Your task to perform on an android device: show emergency info Image 0: 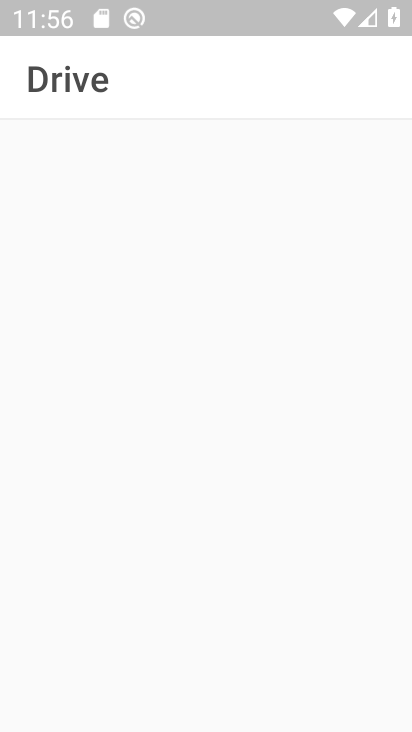
Step 0: press home button
Your task to perform on an android device: show emergency info Image 1: 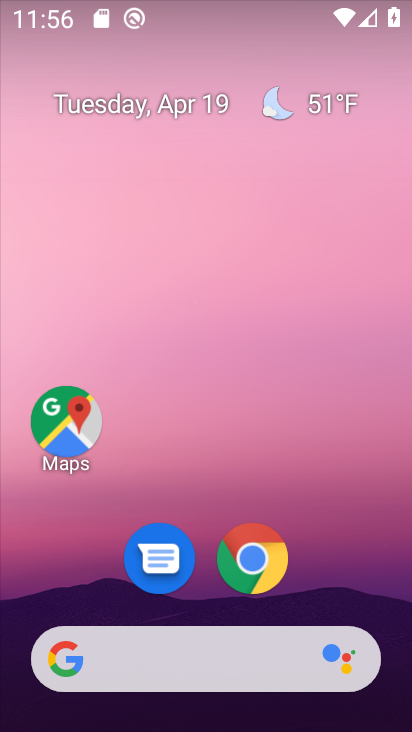
Step 1: drag from (365, 601) to (312, 137)
Your task to perform on an android device: show emergency info Image 2: 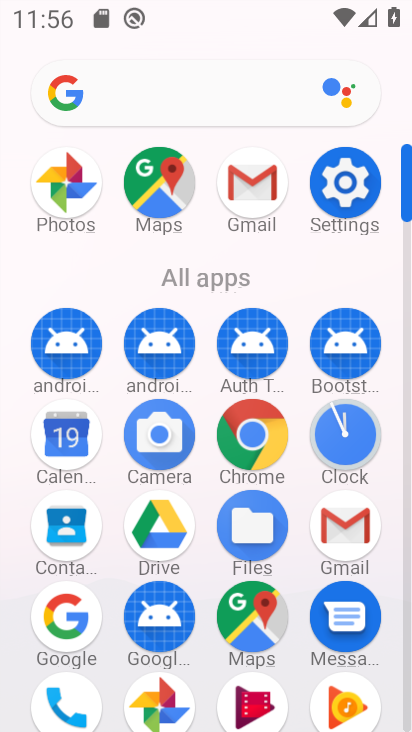
Step 2: click (408, 688)
Your task to perform on an android device: show emergency info Image 3: 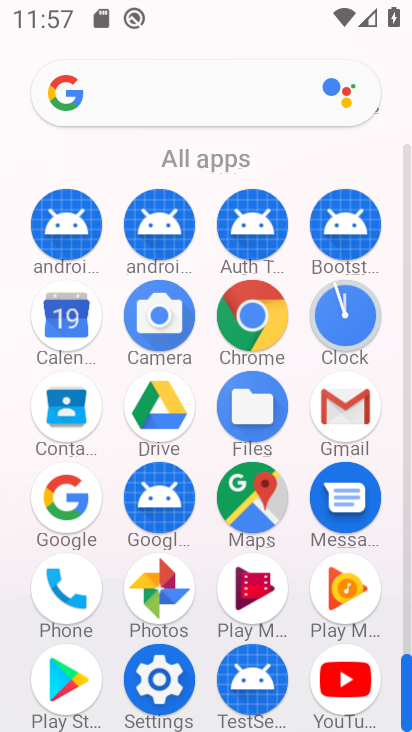
Step 3: click (159, 680)
Your task to perform on an android device: show emergency info Image 4: 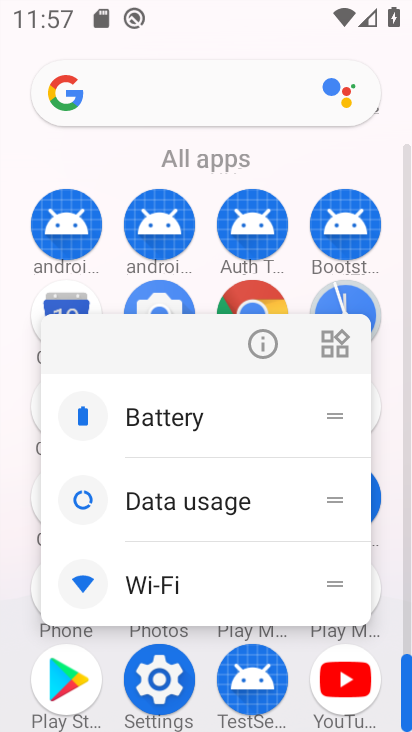
Step 4: click (159, 682)
Your task to perform on an android device: show emergency info Image 5: 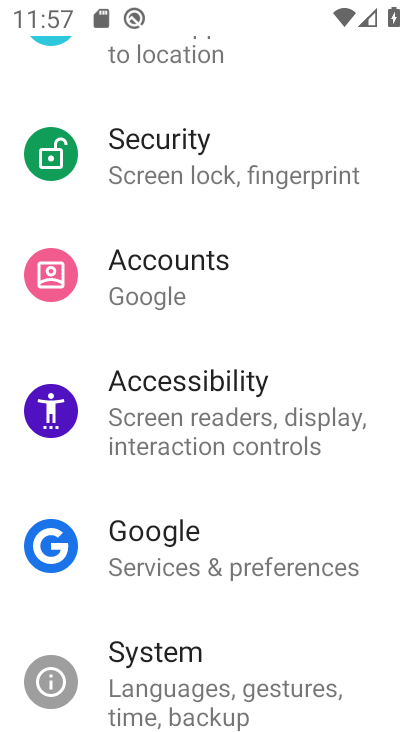
Step 5: drag from (311, 605) to (292, 267)
Your task to perform on an android device: show emergency info Image 6: 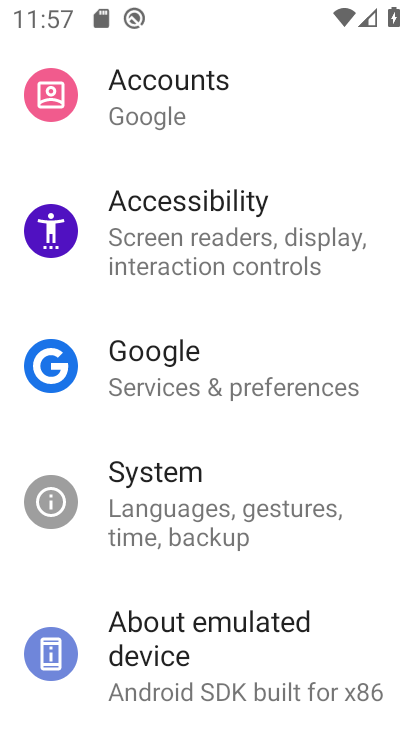
Step 6: click (172, 666)
Your task to perform on an android device: show emergency info Image 7: 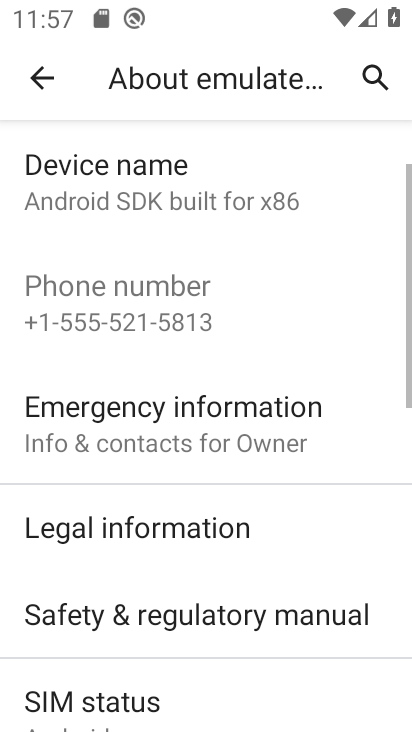
Step 7: click (122, 419)
Your task to perform on an android device: show emergency info Image 8: 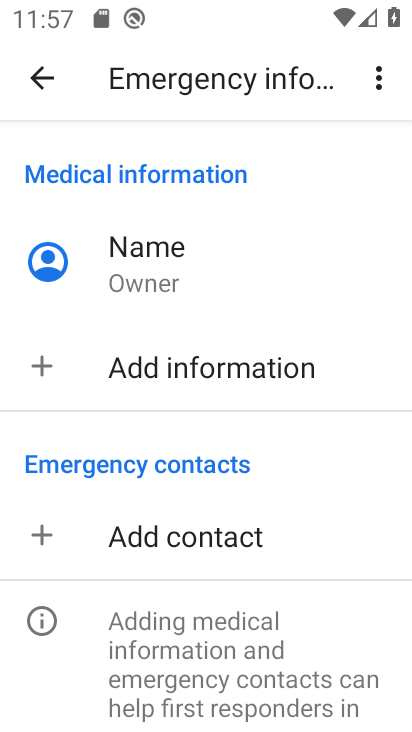
Step 8: task complete